Your task to perform on an android device: Go to ESPN.com Image 0: 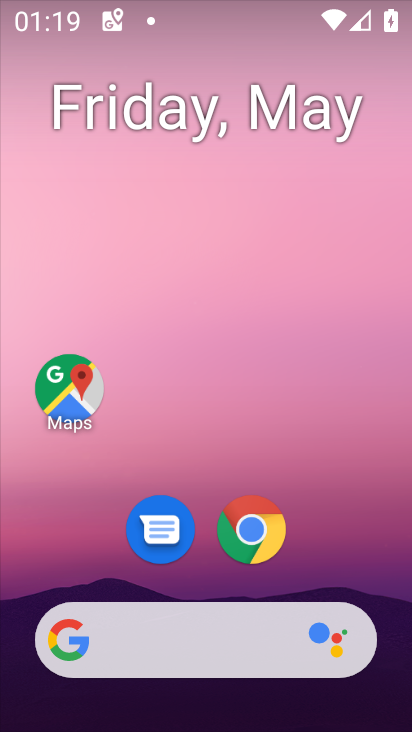
Step 0: click (268, 511)
Your task to perform on an android device: Go to ESPN.com Image 1: 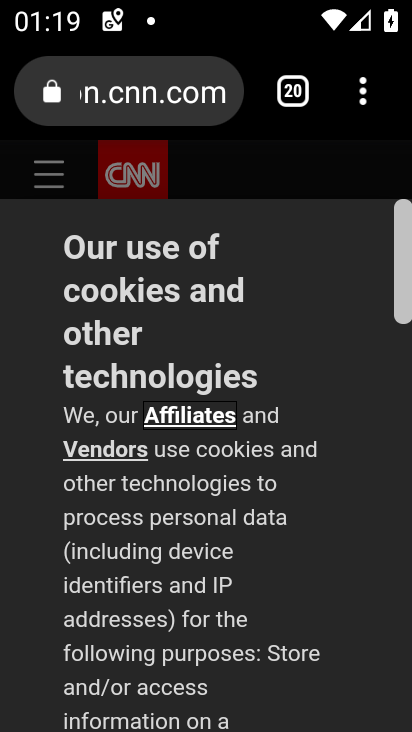
Step 1: click (340, 77)
Your task to perform on an android device: Go to ESPN.com Image 2: 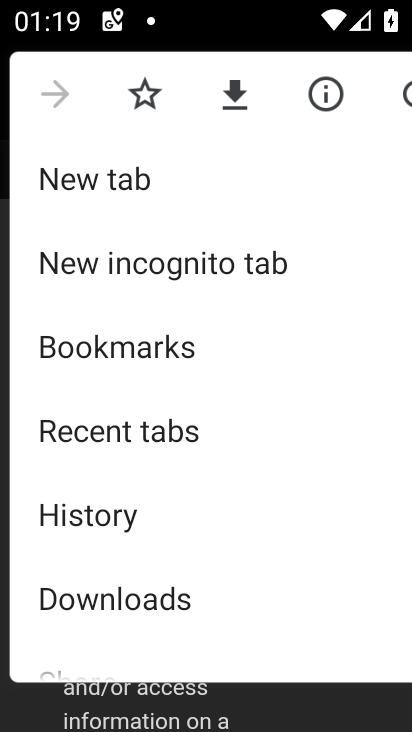
Step 2: click (114, 174)
Your task to perform on an android device: Go to ESPN.com Image 3: 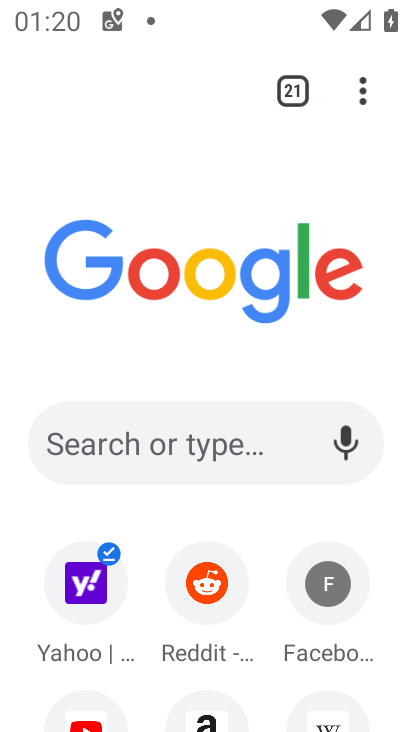
Step 3: drag from (306, 595) to (301, 631)
Your task to perform on an android device: Go to ESPN.com Image 4: 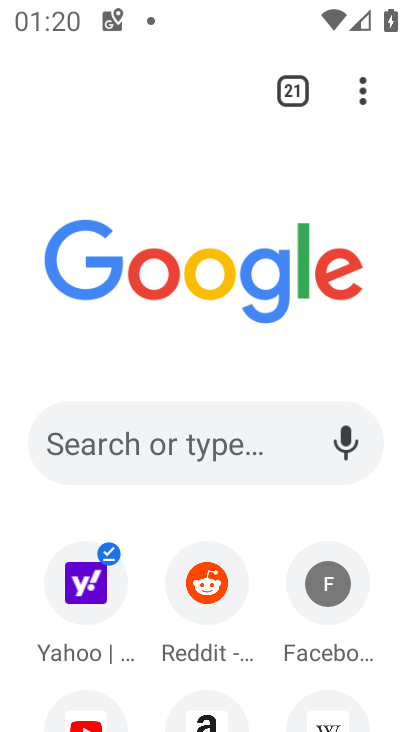
Step 4: click (229, 448)
Your task to perform on an android device: Go to ESPN.com Image 5: 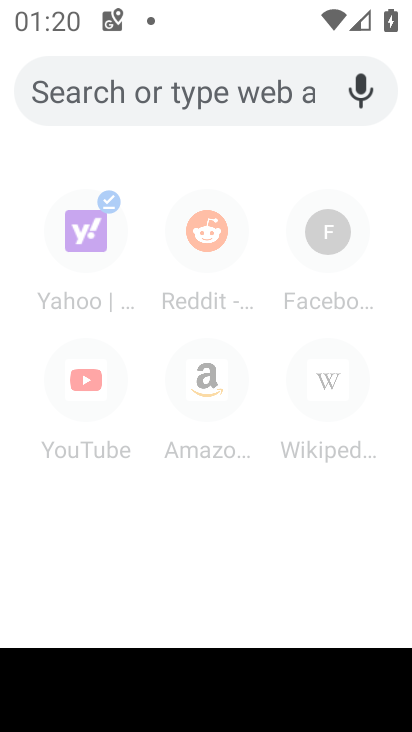
Step 5: type "ESPN.com"
Your task to perform on an android device: Go to ESPN.com Image 6: 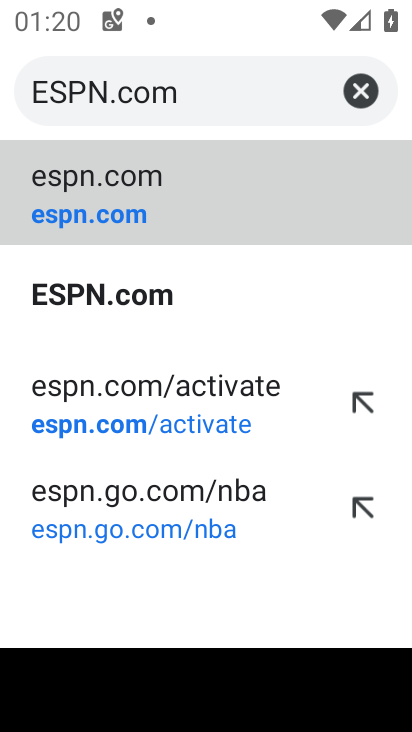
Step 6: click (136, 287)
Your task to perform on an android device: Go to ESPN.com Image 7: 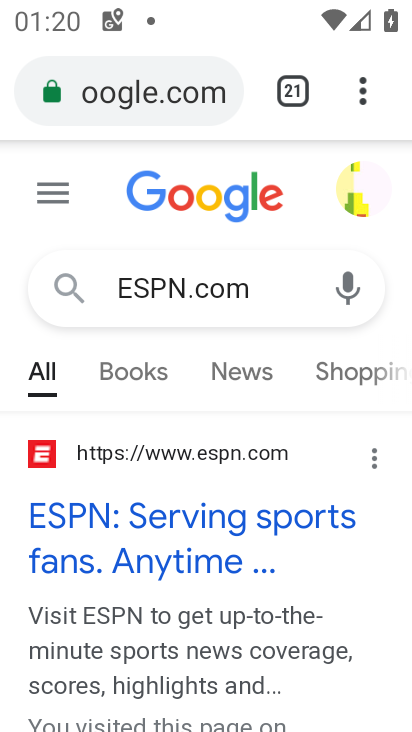
Step 7: task complete